Your task to perform on an android device: See recent photos Image 0: 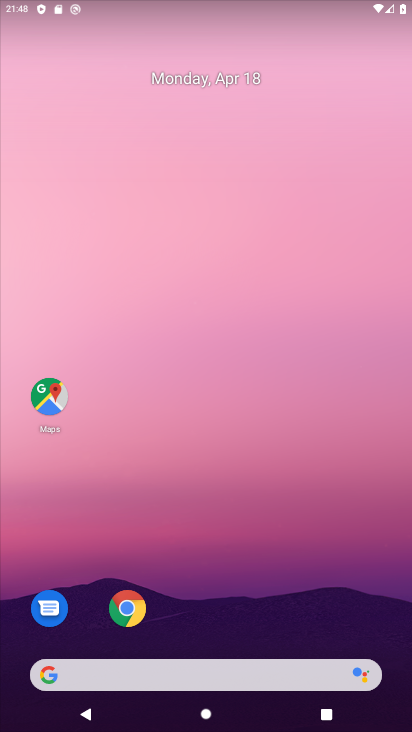
Step 0: drag from (242, 519) to (237, 146)
Your task to perform on an android device: See recent photos Image 1: 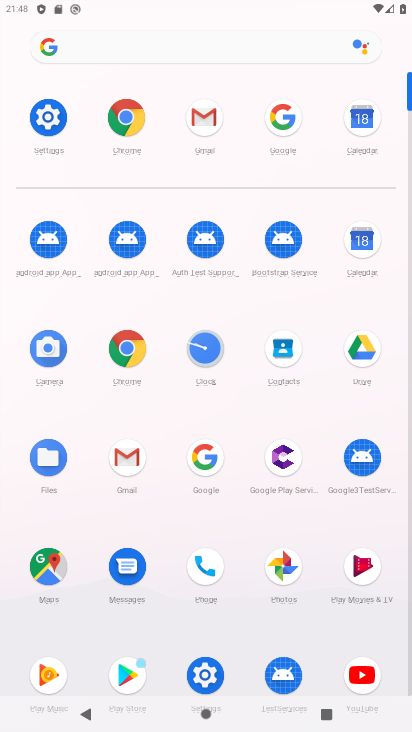
Step 1: click (278, 567)
Your task to perform on an android device: See recent photos Image 2: 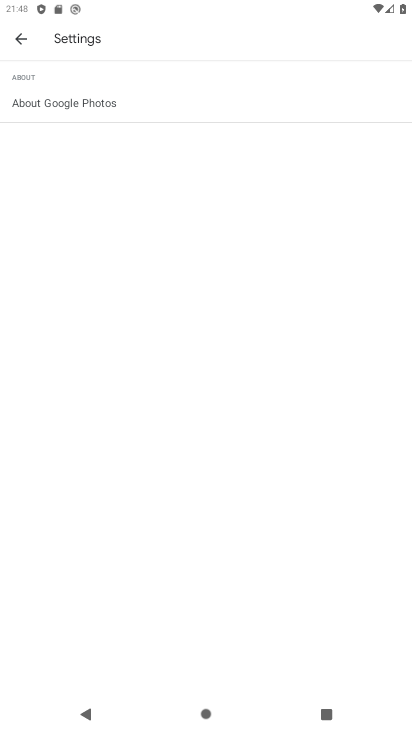
Step 2: press back button
Your task to perform on an android device: See recent photos Image 3: 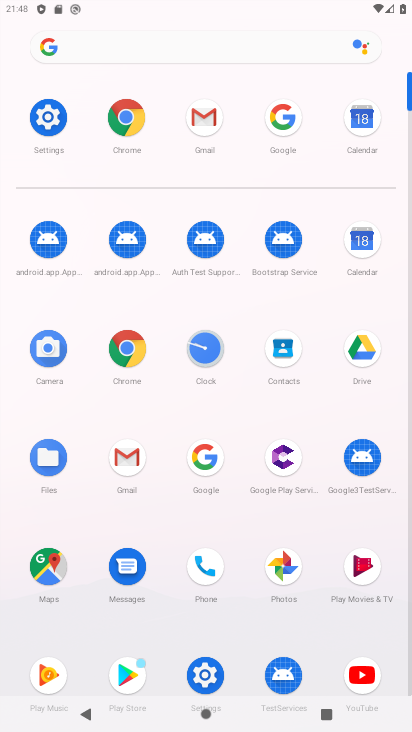
Step 3: click (279, 574)
Your task to perform on an android device: See recent photos Image 4: 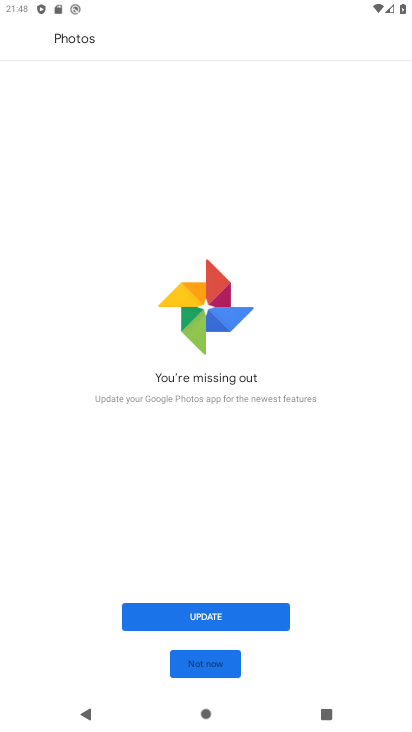
Step 4: click (205, 659)
Your task to perform on an android device: See recent photos Image 5: 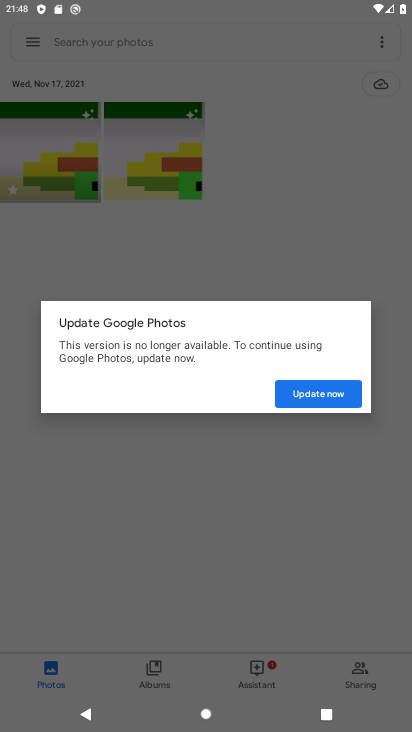
Step 5: task complete